Your task to perform on an android device: turn off notifications in google photos Image 0: 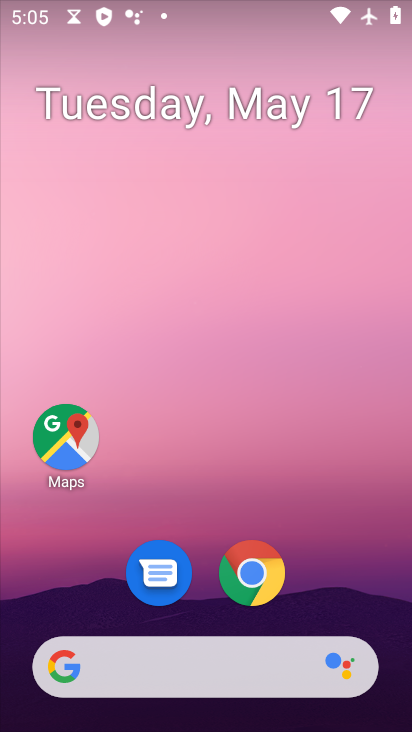
Step 0: drag from (384, 643) to (105, 94)
Your task to perform on an android device: turn off notifications in google photos Image 1: 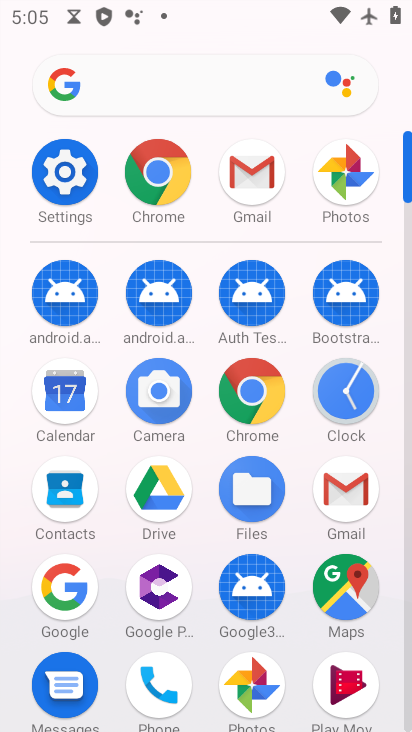
Step 1: click (254, 679)
Your task to perform on an android device: turn off notifications in google photos Image 2: 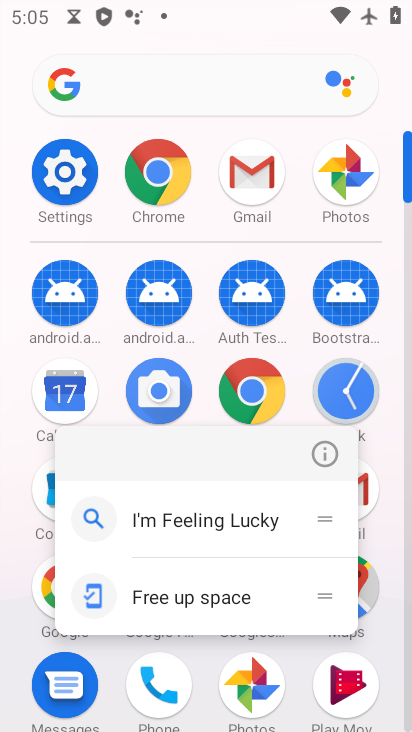
Step 2: click (256, 683)
Your task to perform on an android device: turn off notifications in google photos Image 3: 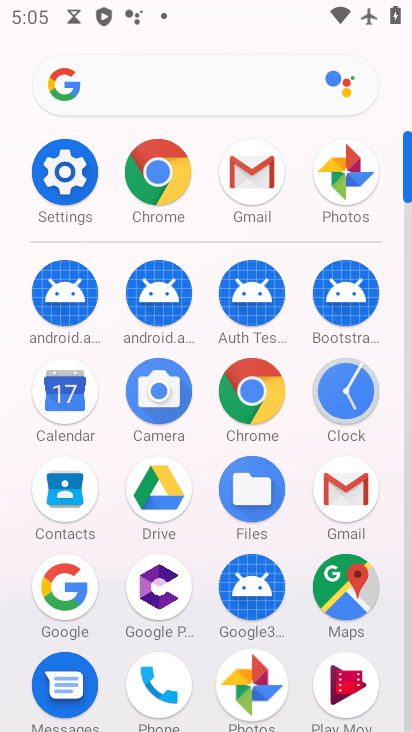
Step 3: click (253, 685)
Your task to perform on an android device: turn off notifications in google photos Image 4: 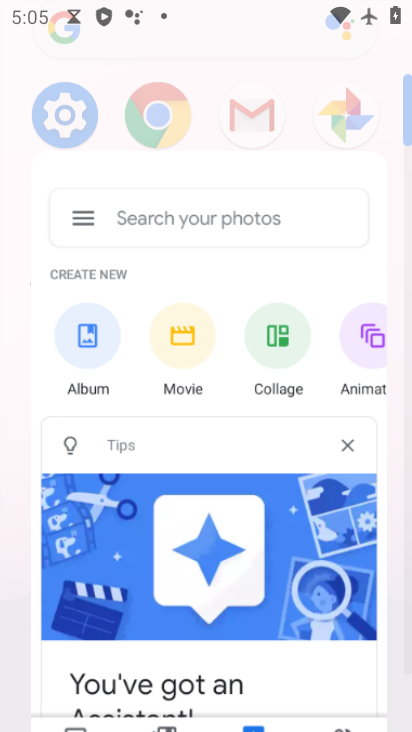
Step 4: click (253, 685)
Your task to perform on an android device: turn off notifications in google photos Image 5: 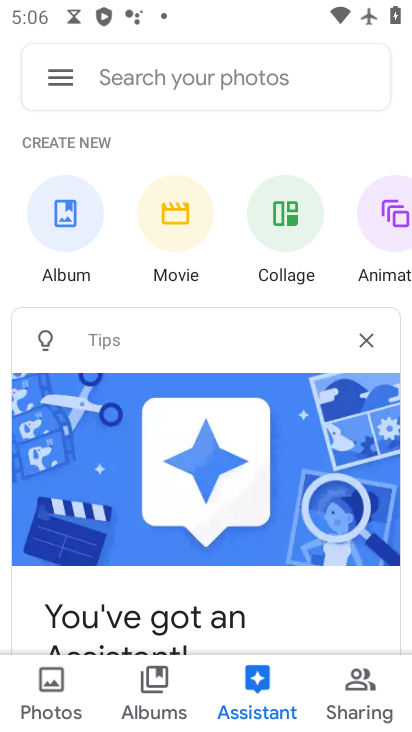
Step 5: drag from (230, 514) to (221, 168)
Your task to perform on an android device: turn off notifications in google photos Image 6: 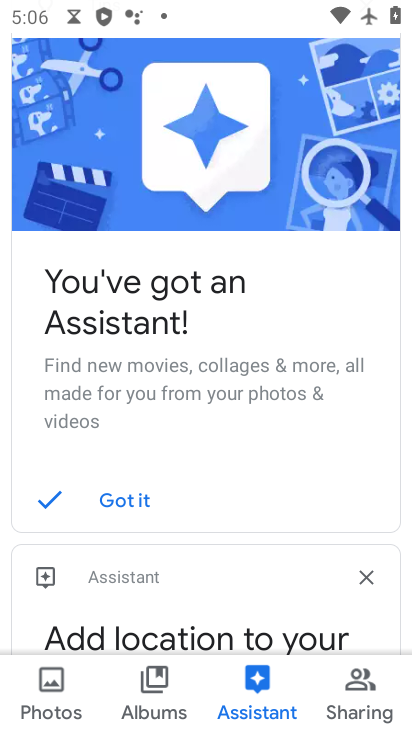
Step 6: drag from (238, 368) to (260, 181)
Your task to perform on an android device: turn off notifications in google photos Image 7: 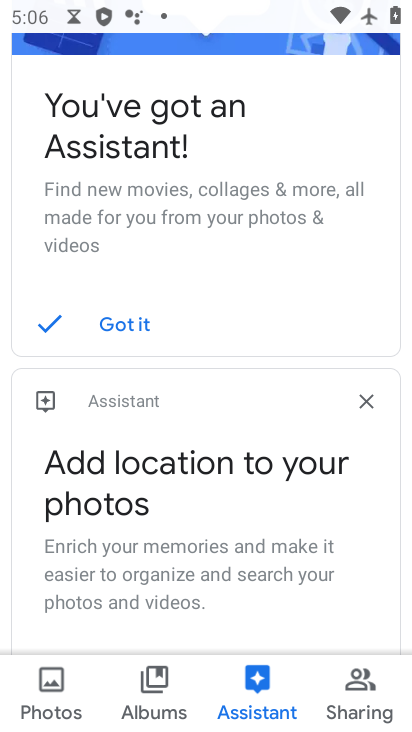
Step 7: drag from (95, 185) to (202, 545)
Your task to perform on an android device: turn off notifications in google photos Image 8: 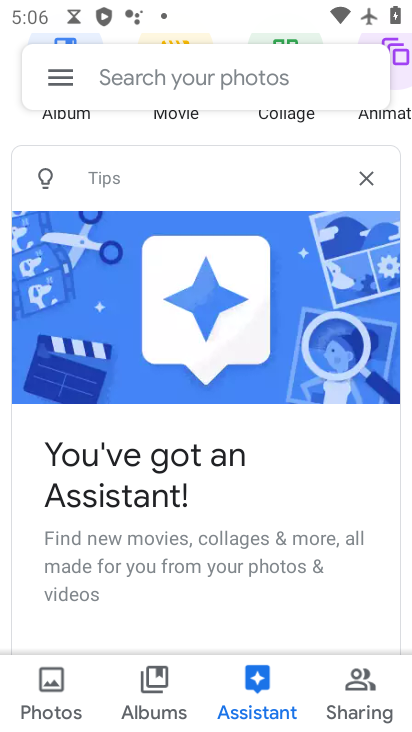
Step 8: drag from (85, 176) to (159, 627)
Your task to perform on an android device: turn off notifications in google photos Image 9: 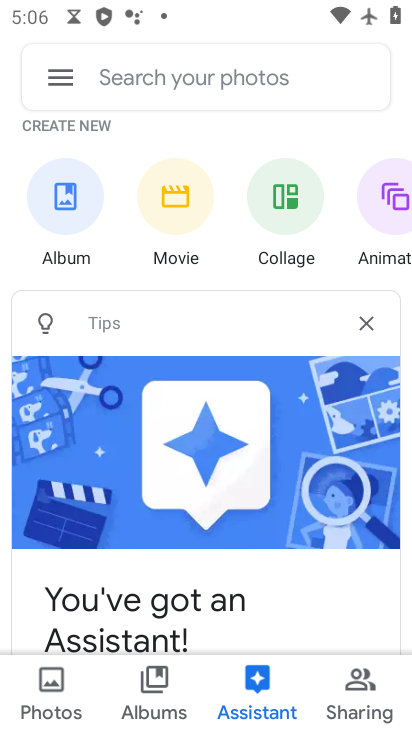
Step 9: click (55, 83)
Your task to perform on an android device: turn off notifications in google photos Image 10: 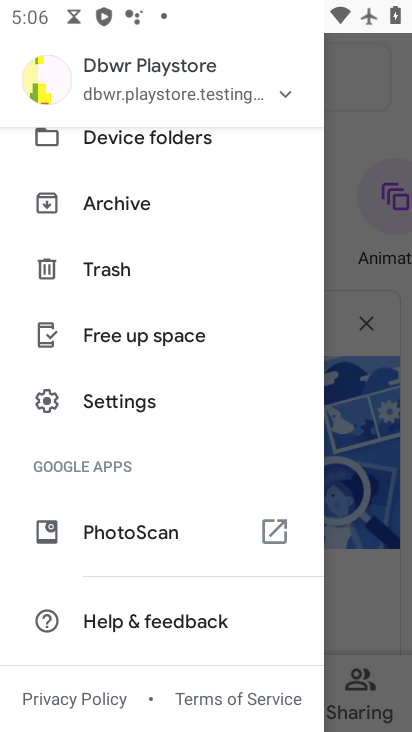
Step 10: drag from (151, 565) to (144, 123)
Your task to perform on an android device: turn off notifications in google photos Image 11: 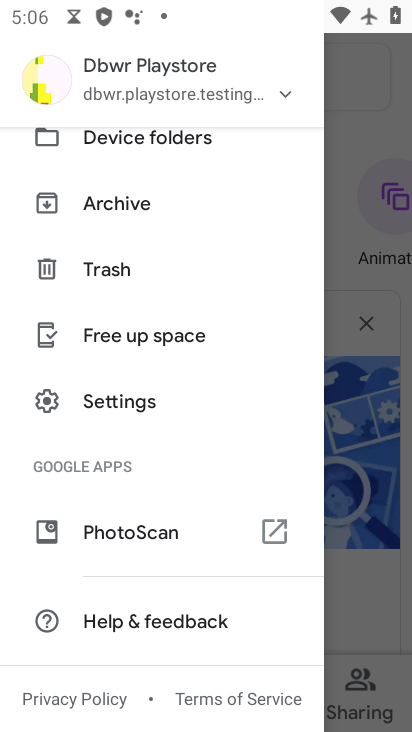
Step 11: click (120, 401)
Your task to perform on an android device: turn off notifications in google photos Image 12: 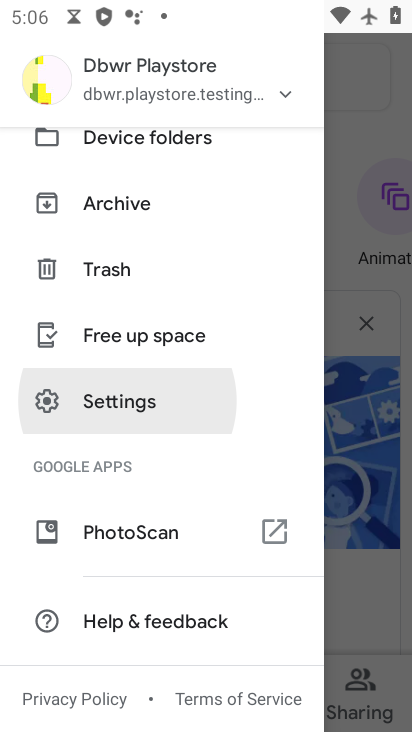
Step 12: click (121, 400)
Your task to perform on an android device: turn off notifications in google photos Image 13: 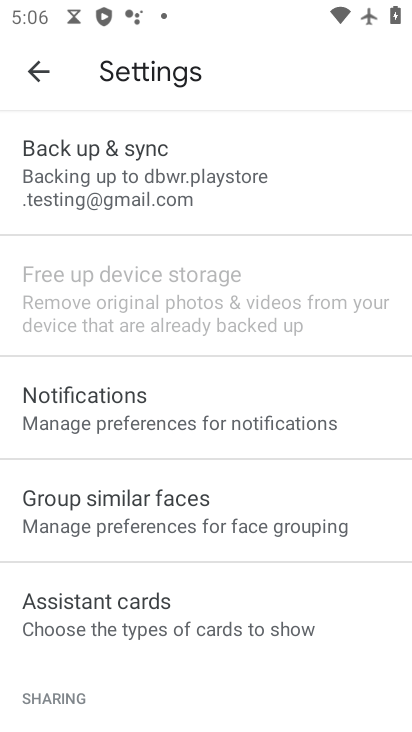
Step 13: click (98, 181)
Your task to perform on an android device: turn off notifications in google photos Image 14: 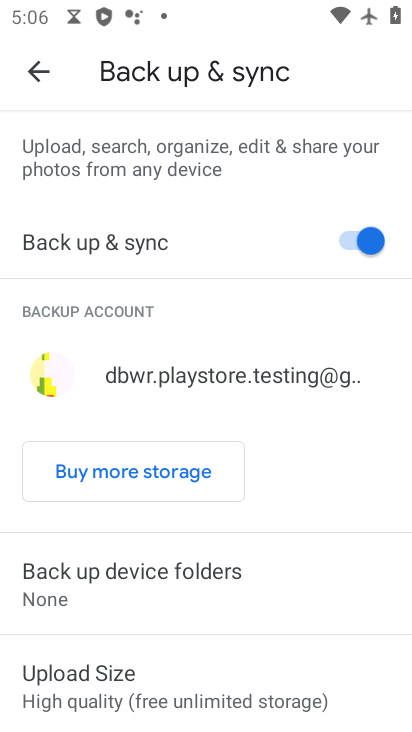
Step 14: click (108, 677)
Your task to perform on an android device: turn off notifications in google photos Image 15: 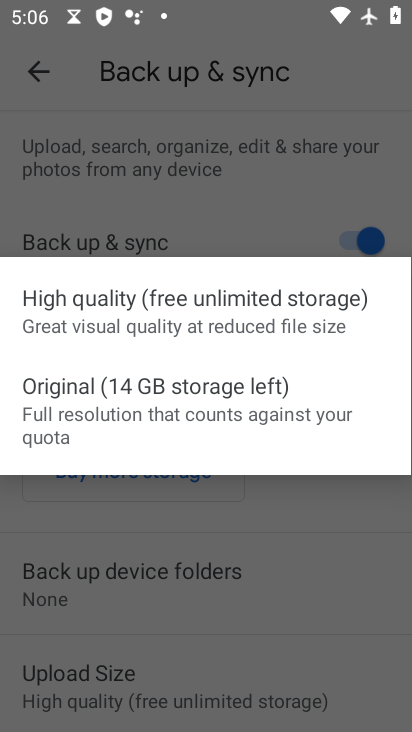
Step 15: click (60, 400)
Your task to perform on an android device: turn off notifications in google photos Image 16: 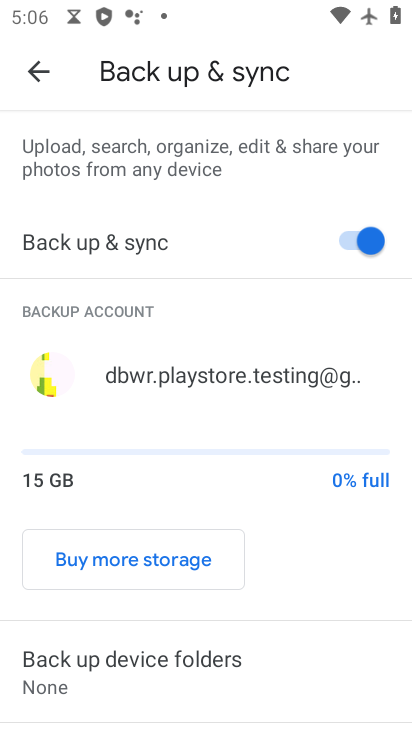
Step 16: task complete